Your task to perform on an android device: Open Amazon Image 0: 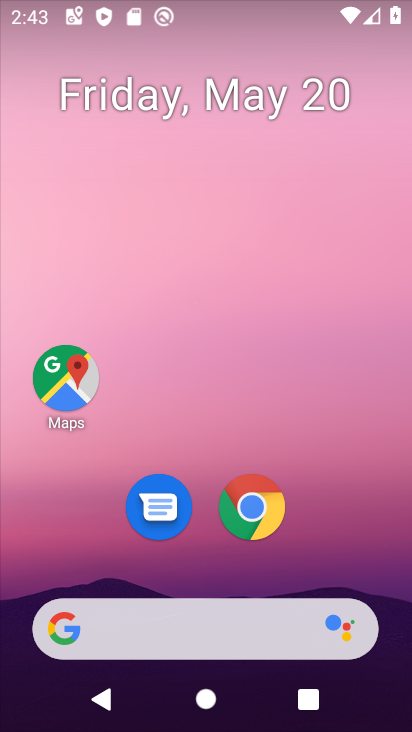
Step 0: click (254, 500)
Your task to perform on an android device: Open Amazon Image 1: 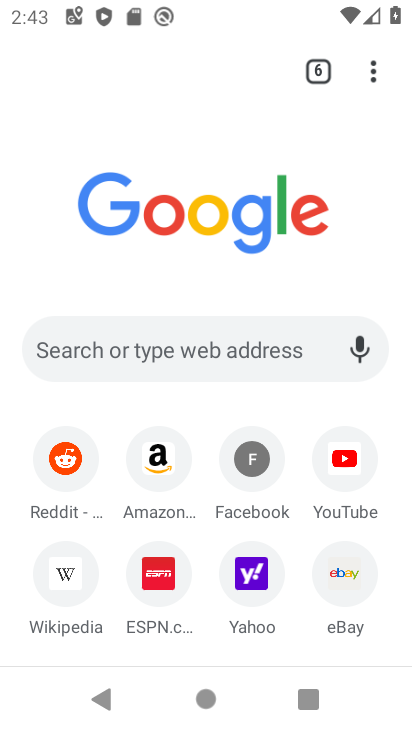
Step 1: click (156, 447)
Your task to perform on an android device: Open Amazon Image 2: 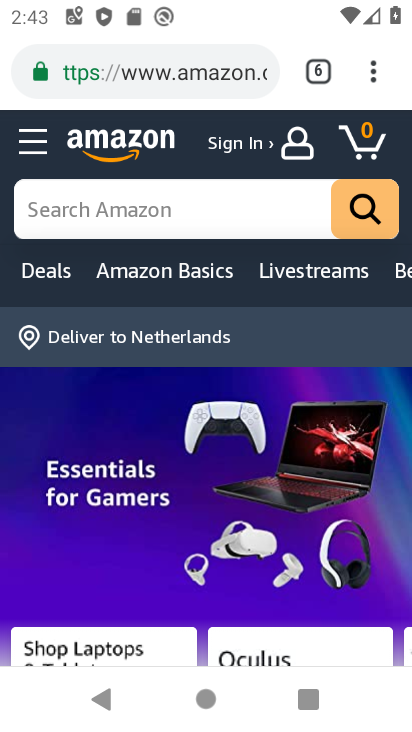
Step 2: task complete